Your task to perform on an android device: Open my contact list Image 0: 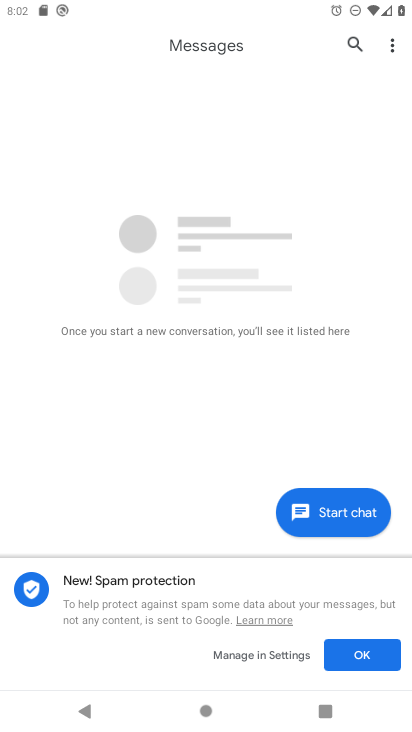
Step 0: press home button
Your task to perform on an android device: Open my contact list Image 1: 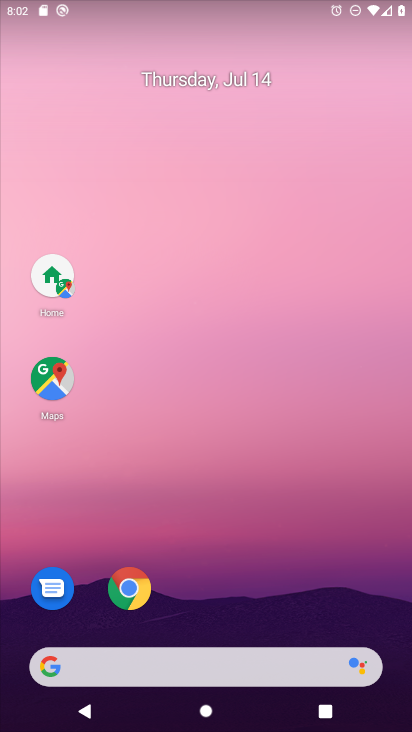
Step 1: drag from (81, 637) to (390, 143)
Your task to perform on an android device: Open my contact list Image 2: 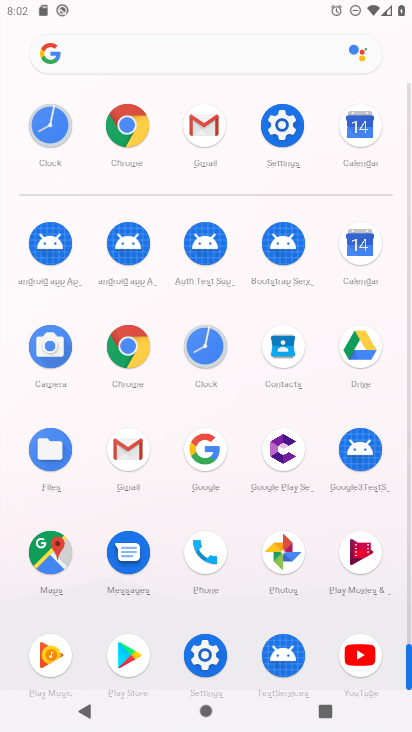
Step 2: click (271, 360)
Your task to perform on an android device: Open my contact list Image 3: 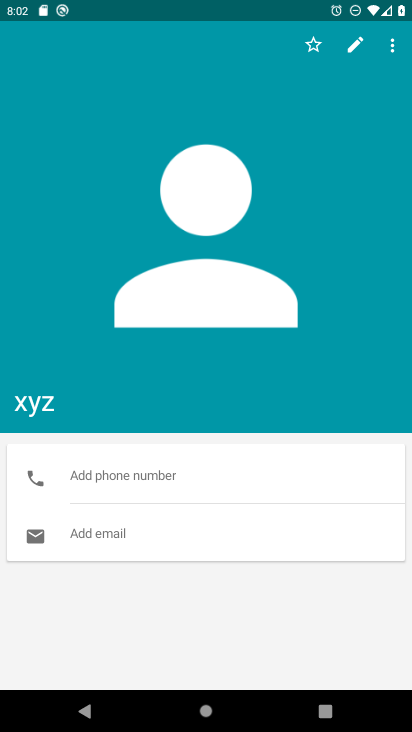
Step 3: click (89, 717)
Your task to perform on an android device: Open my contact list Image 4: 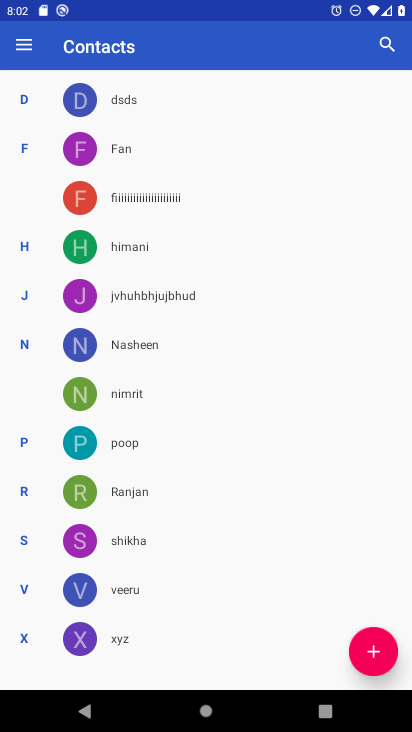
Step 4: task complete